Your task to perform on an android device: What's the weather going to be this weekend? Image 0: 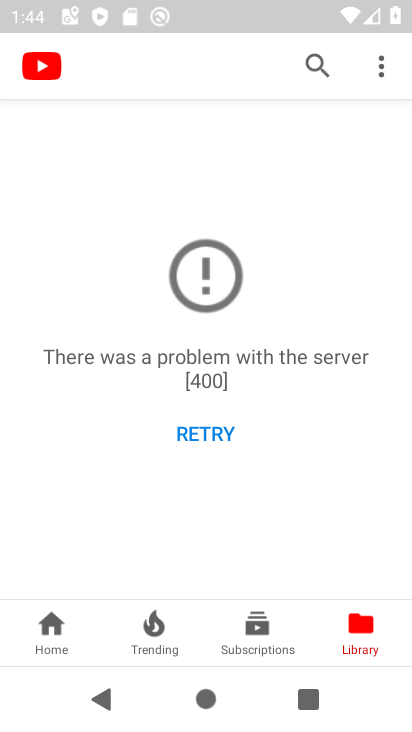
Step 0: press back button
Your task to perform on an android device: What's the weather going to be this weekend? Image 1: 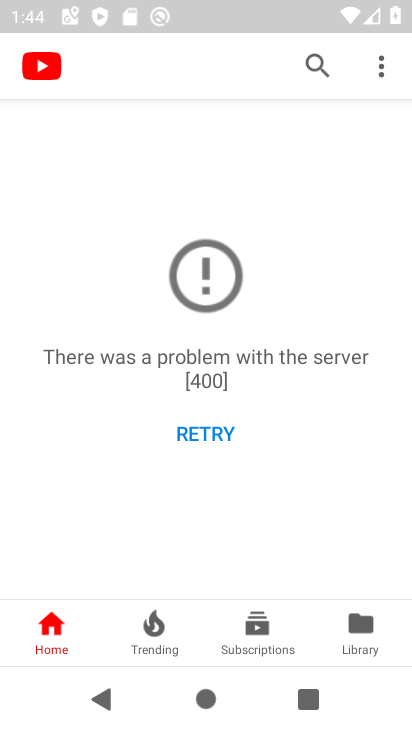
Step 1: press back button
Your task to perform on an android device: What's the weather going to be this weekend? Image 2: 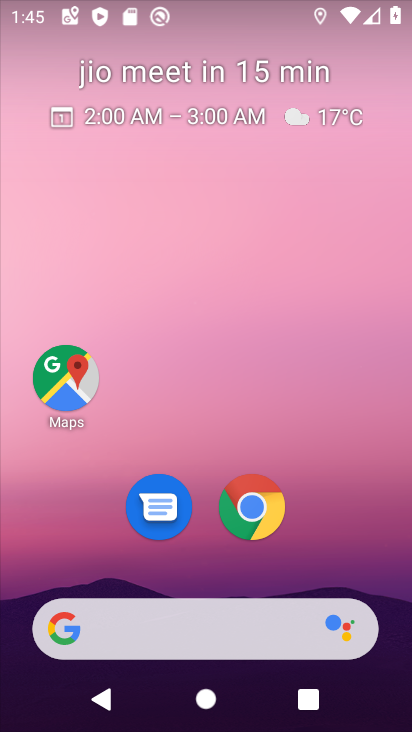
Step 2: drag from (345, 498) to (289, 37)
Your task to perform on an android device: What's the weather going to be this weekend? Image 3: 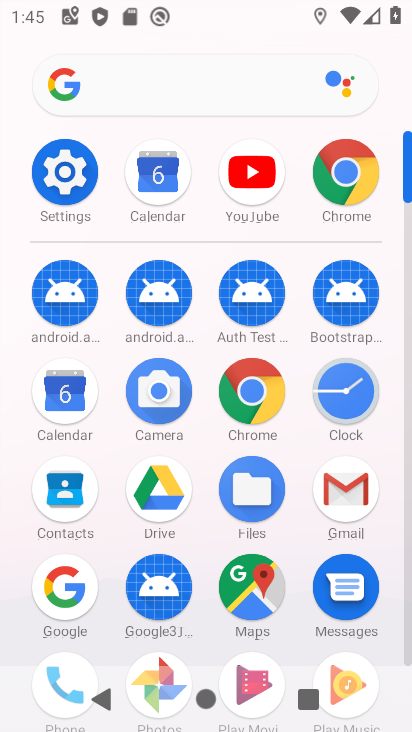
Step 3: drag from (23, 556) to (28, 244)
Your task to perform on an android device: What's the weather going to be this weekend? Image 4: 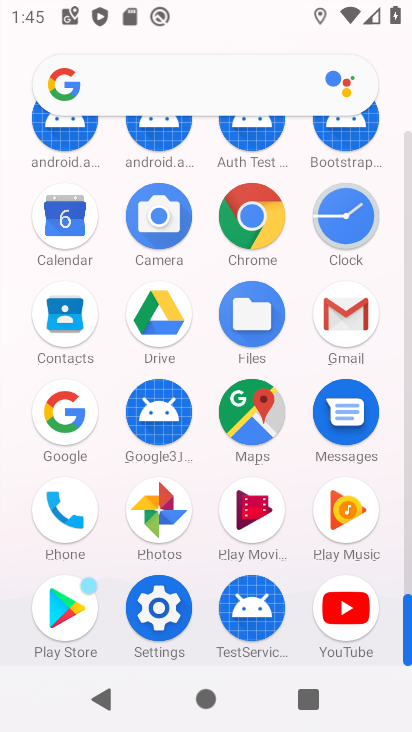
Step 4: click (248, 216)
Your task to perform on an android device: What's the weather going to be this weekend? Image 5: 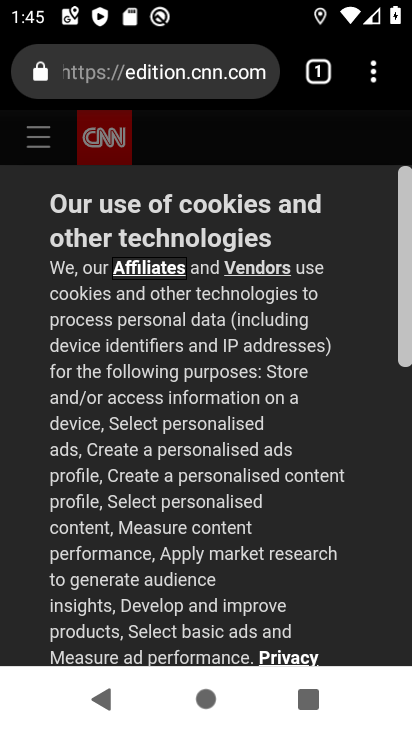
Step 5: click (198, 61)
Your task to perform on an android device: What's the weather going to be this weekend? Image 6: 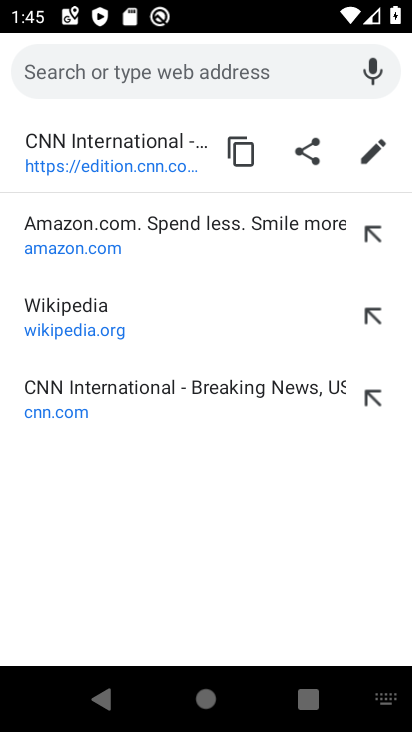
Step 6: type "What's the weather going to be this weekend?"
Your task to perform on an android device: What's the weather going to be this weekend? Image 7: 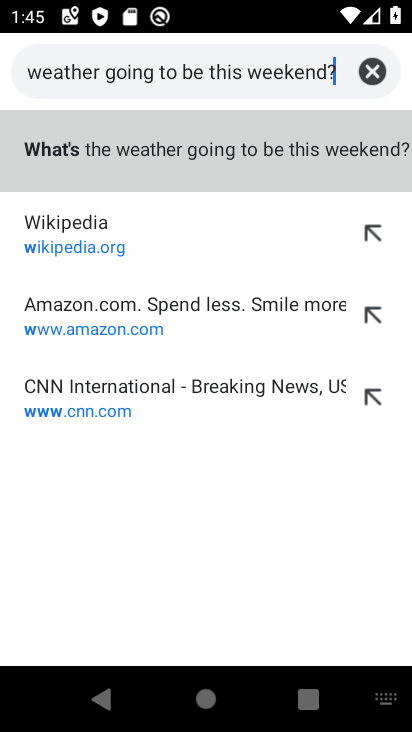
Step 7: type ""
Your task to perform on an android device: What's the weather going to be this weekend? Image 8: 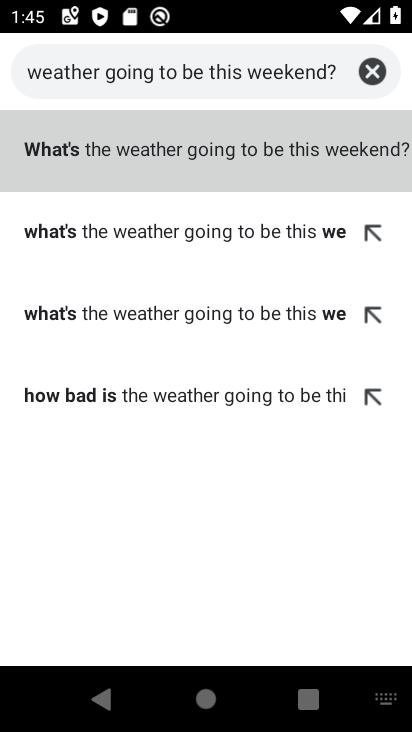
Step 8: click (161, 143)
Your task to perform on an android device: What's the weather going to be this weekend? Image 9: 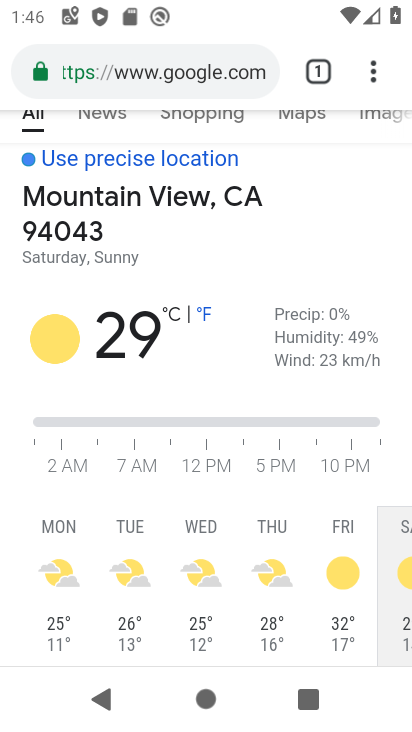
Step 9: task complete